Your task to perform on an android device: See recent photos Image 0: 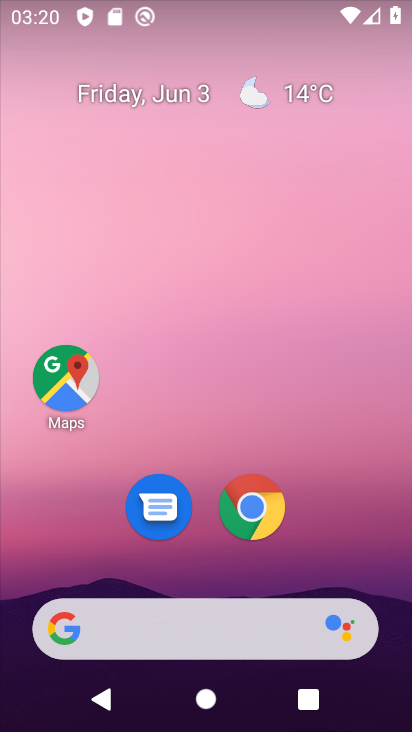
Step 0: press home button
Your task to perform on an android device: See recent photos Image 1: 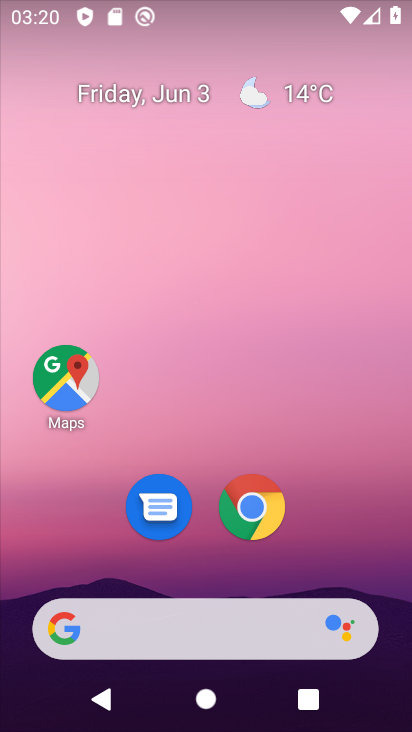
Step 1: drag from (375, 544) to (341, 122)
Your task to perform on an android device: See recent photos Image 2: 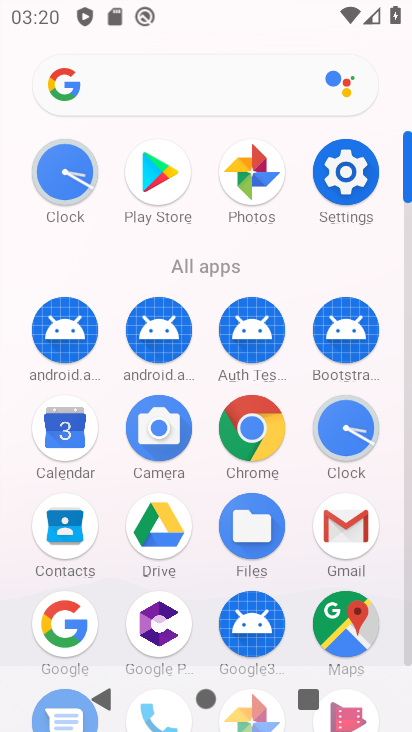
Step 2: click (256, 175)
Your task to perform on an android device: See recent photos Image 3: 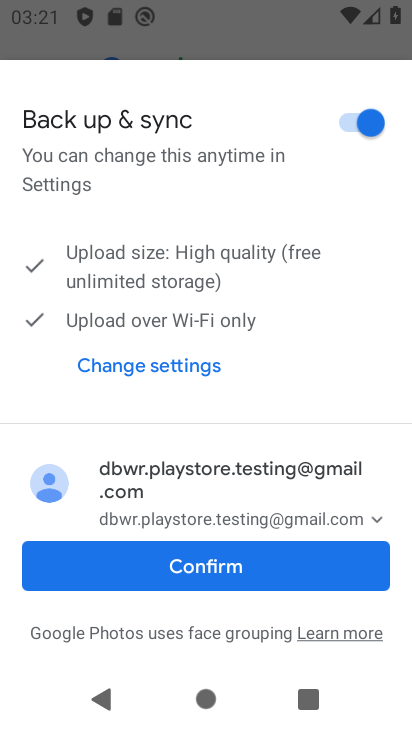
Step 3: click (140, 565)
Your task to perform on an android device: See recent photos Image 4: 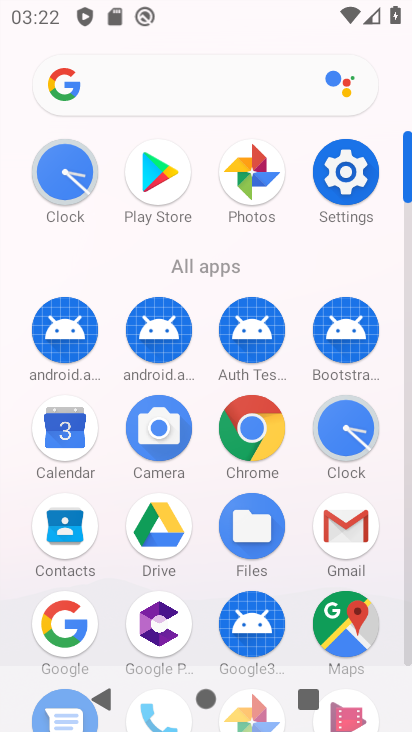
Step 4: click (249, 169)
Your task to perform on an android device: See recent photos Image 5: 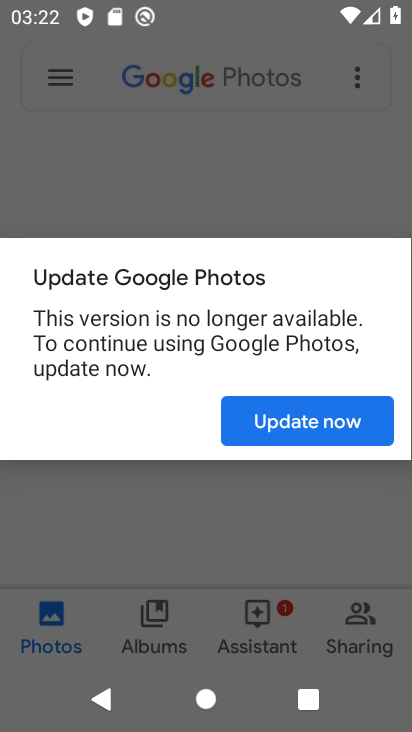
Step 5: click (305, 428)
Your task to perform on an android device: See recent photos Image 6: 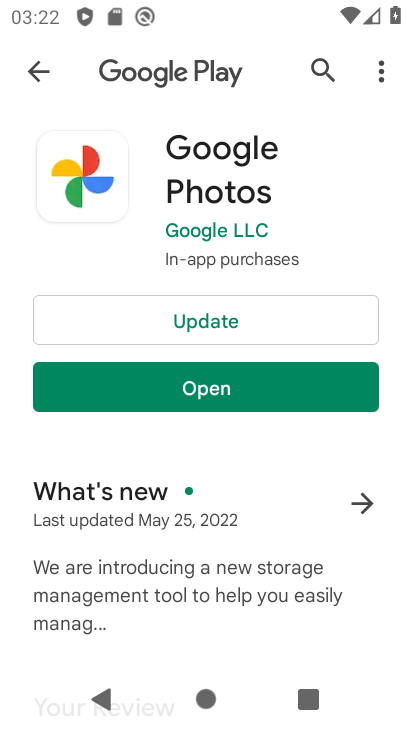
Step 6: click (228, 324)
Your task to perform on an android device: See recent photos Image 7: 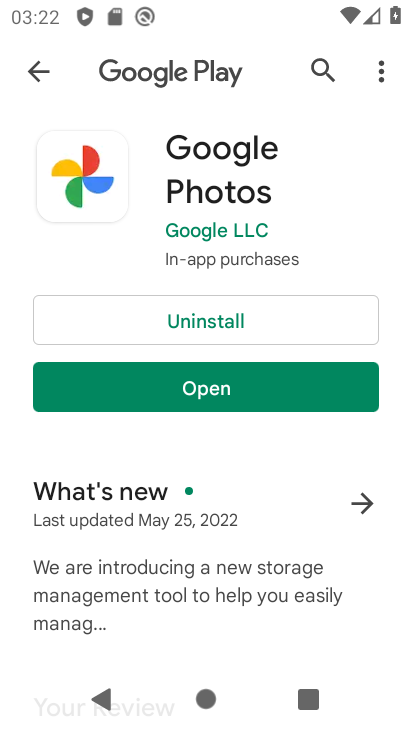
Step 7: click (255, 391)
Your task to perform on an android device: See recent photos Image 8: 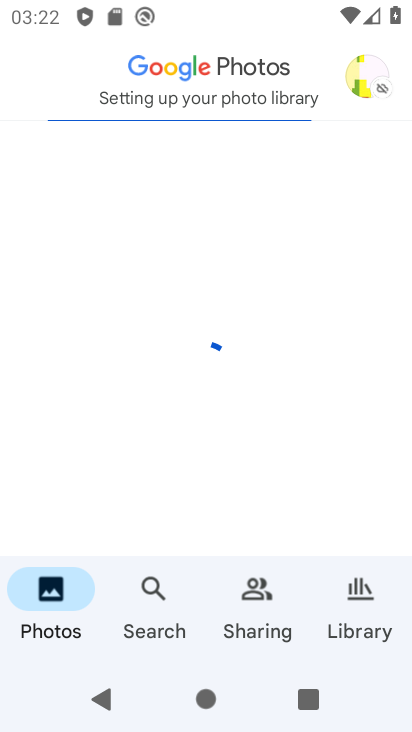
Step 8: click (44, 611)
Your task to perform on an android device: See recent photos Image 9: 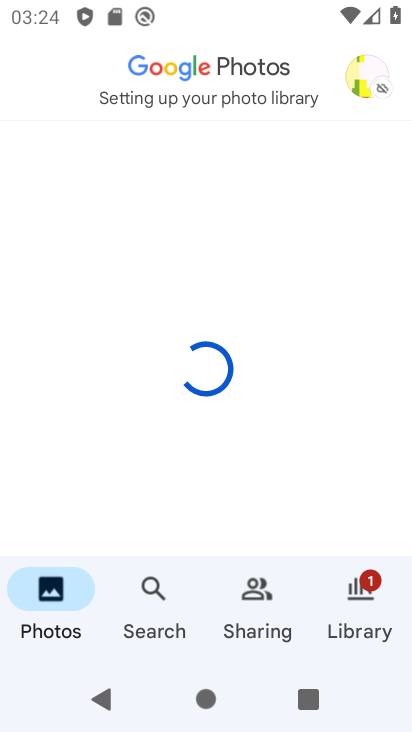
Step 9: press home button
Your task to perform on an android device: See recent photos Image 10: 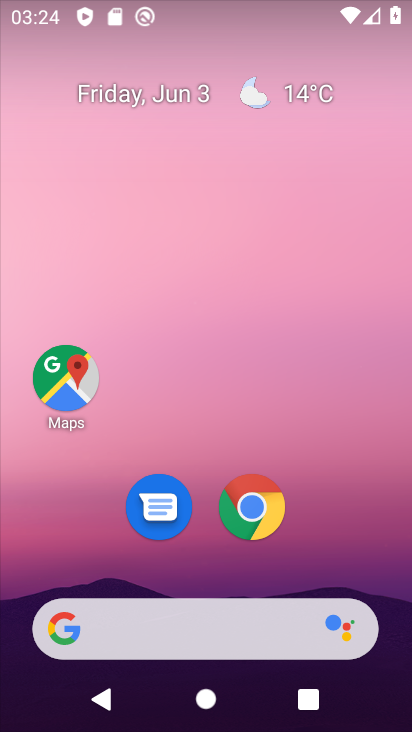
Step 10: drag from (210, 578) to (241, 219)
Your task to perform on an android device: See recent photos Image 11: 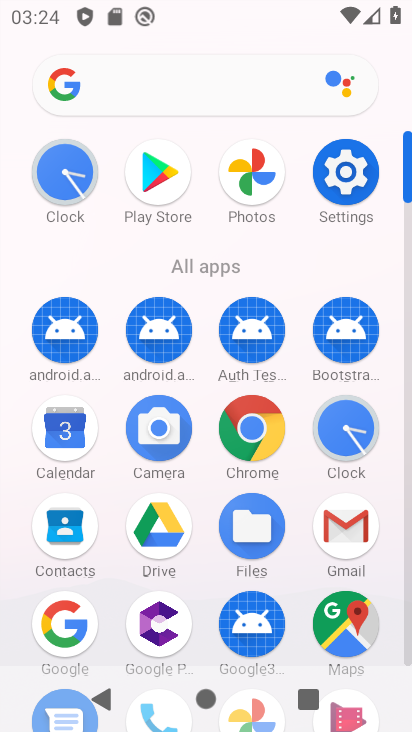
Step 11: click (248, 189)
Your task to perform on an android device: See recent photos Image 12: 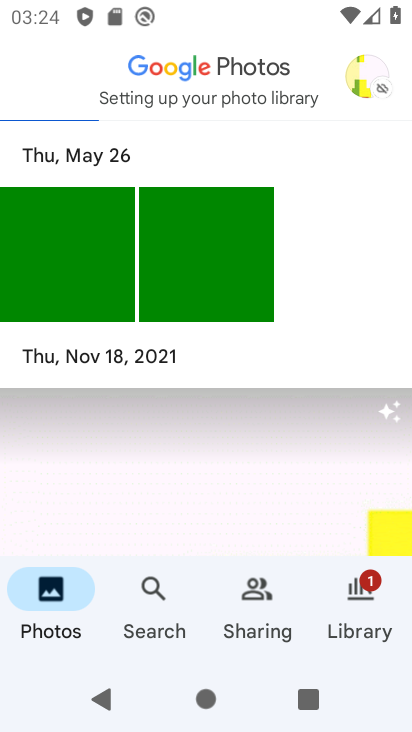
Step 12: click (52, 602)
Your task to perform on an android device: See recent photos Image 13: 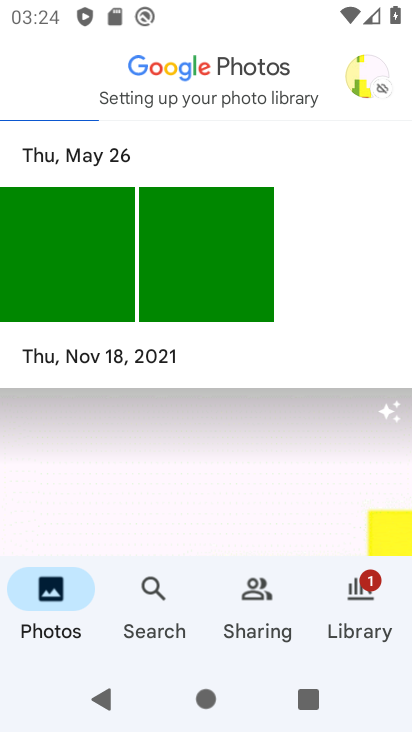
Step 13: click (50, 603)
Your task to perform on an android device: See recent photos Image 14: 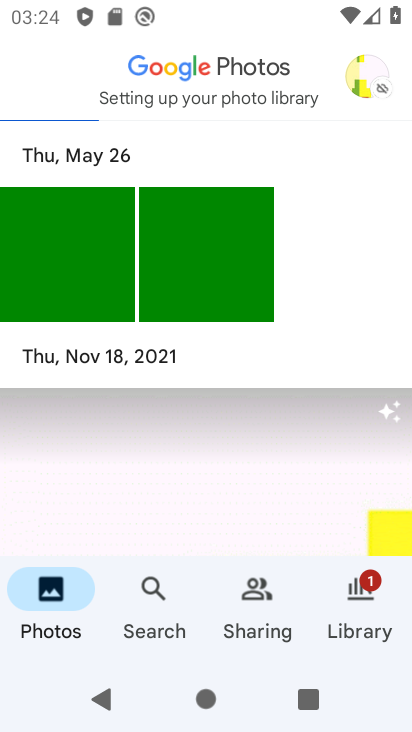
Step 14: click (51, 602)
Your task to perform on an android device: See recent photos Image 15: 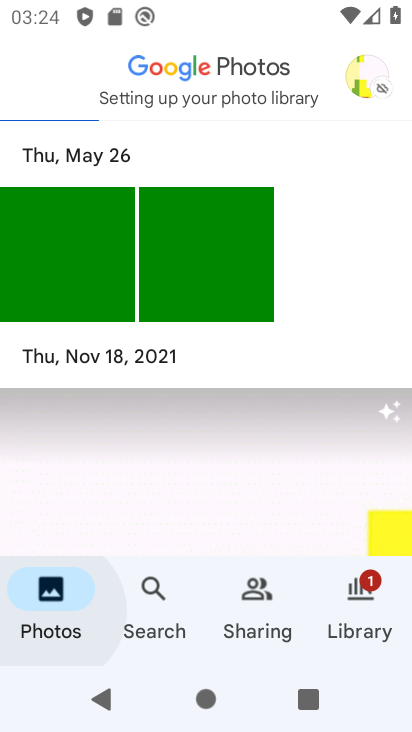
Step 15: click (51, 600)
Your task to perform on an android device: See recent photos Image 16: 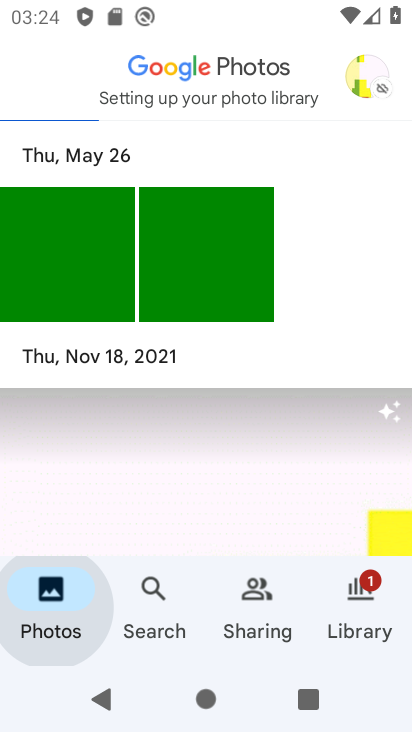
Step 16: click (52, 599)
Your task to perform on an android device: See recent photos Image 17: 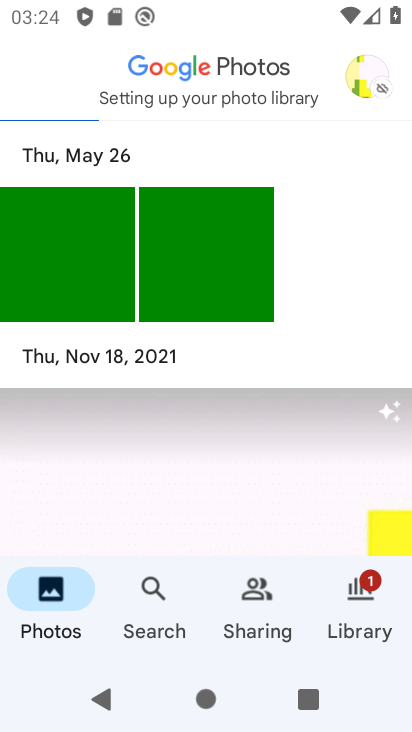
Step 17: task complete